Your task to perform on an android device: Go to sound settings Image 0: 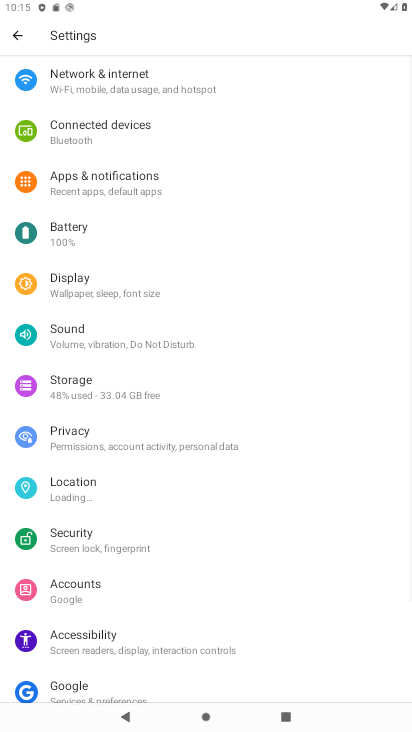
Step 0: press home button
Your task to perform on an android device: Go to sound settings Image 1: 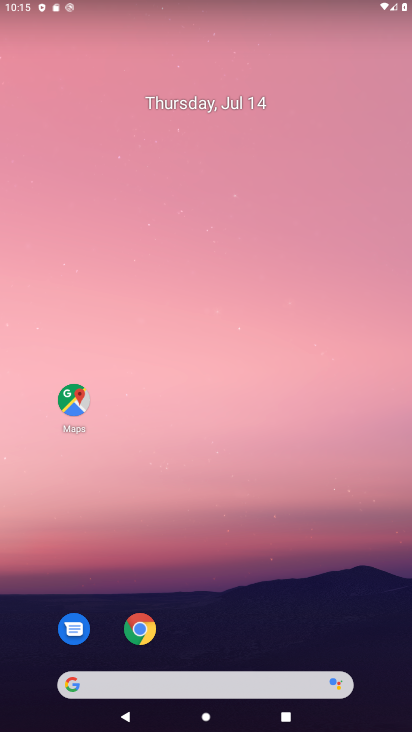
Step 1: drag from (167, 677) to (187, 235)
Your task to perform on an android device: Go to sound settings Image 2: 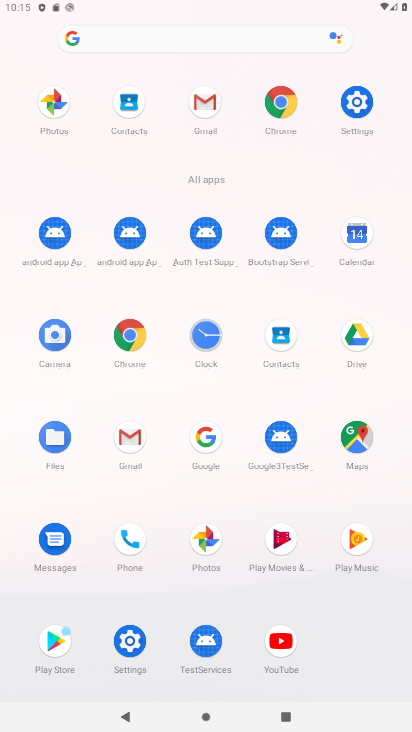
Step 2: click (368, 108)
Your task to perform on an android device: Go to sound settings Image 3: 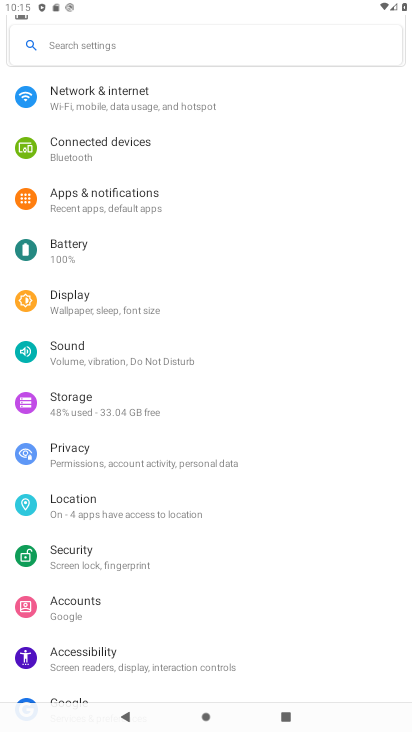
Step 3: click (74, 344)
Your task to perform on an android device: Go to sound settings Image 4: 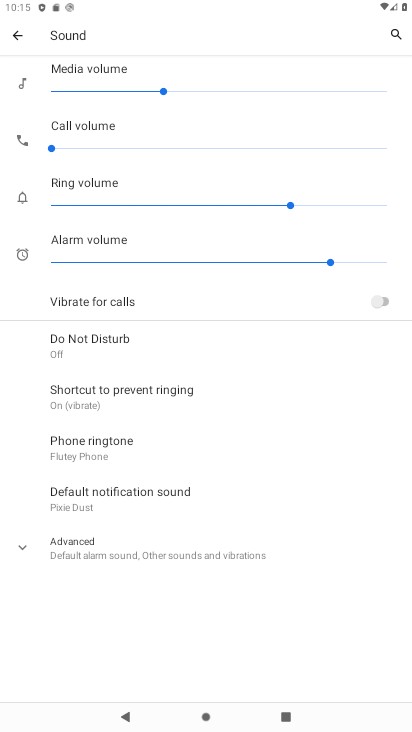
Step 4: click (85, 550)
Your task to perform on an android device: Go to sound settings Image 5: 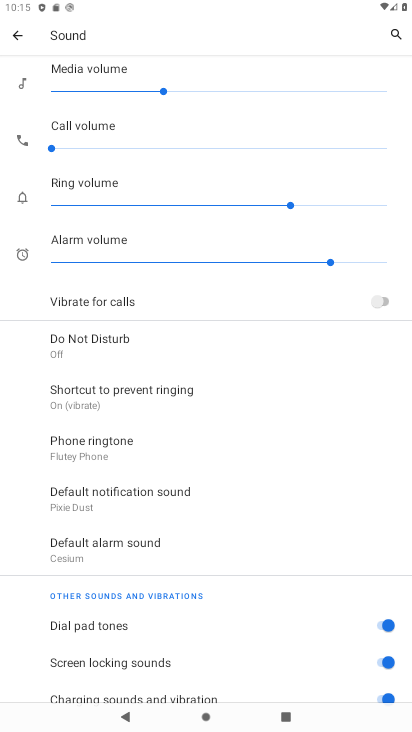
Step 5: task complete